Your task to perform on an android device: add a contact in the contacts app Image 0: 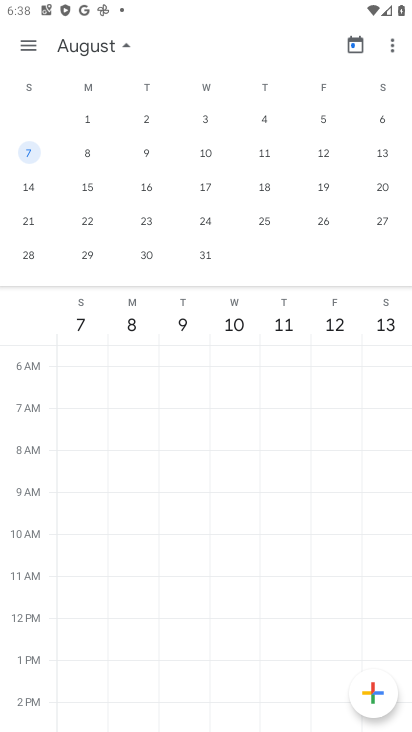
Step 0: press home button
Your task to perform on an android device: add a contact in the contacts app Image 1: 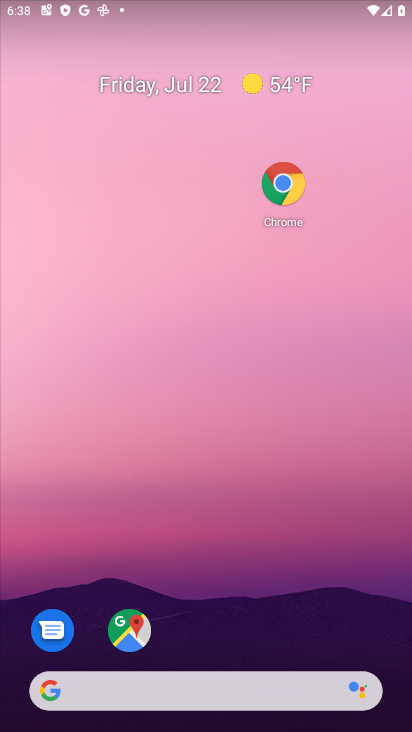
Step 1: drag from (193, 621) to (193, 169)
Your task to perform on an android device: add a contact in the contacts app Image 2: 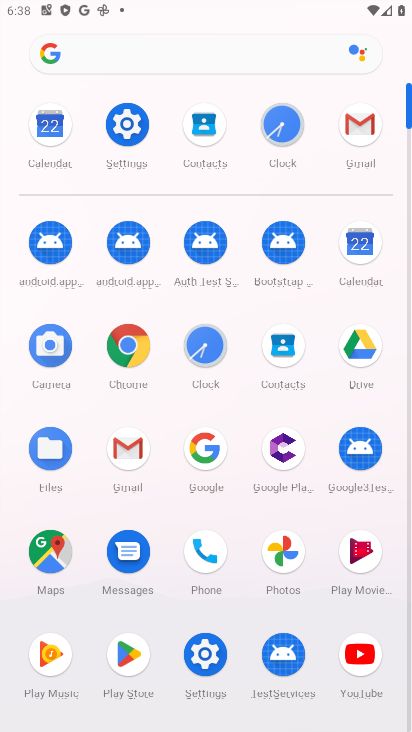
Step 2: click (281, 349)
Your task to perform on an android device: add a contact in the contacts app Image 3: 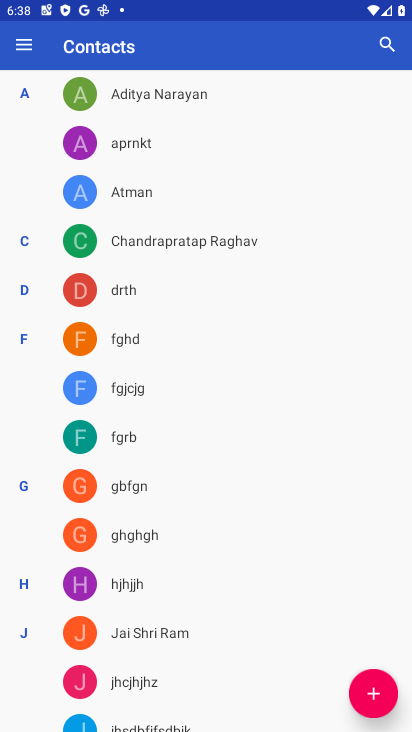
Step 3: click (365, 695)
Your task to perform on an android device: add a contact in the contacts app Image 4: 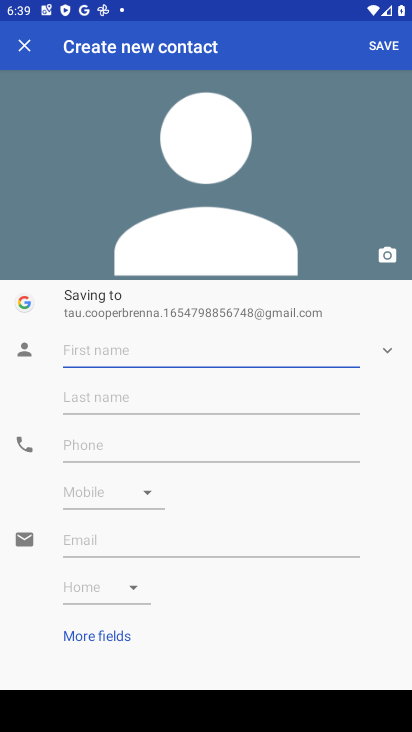
Step 4: click (175, 350)
Your task to perform on an android device: add a contact in the contacts app Image 5: 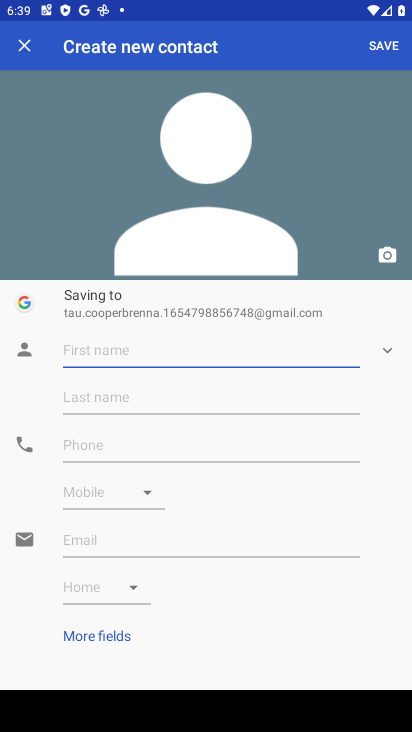
Step 5: type "Iddhi"
Your task to perform on an android device: add a contact in the contacts app Image 6: 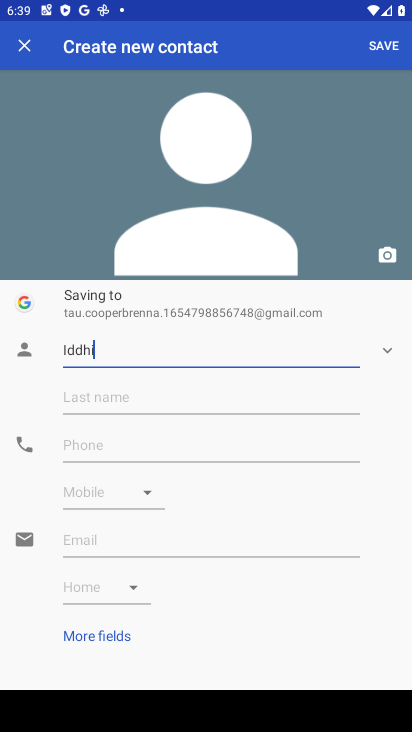
Step 6: click (239, 441)
Your task to perform on an android device: add a contact in the contacts app Image 7: 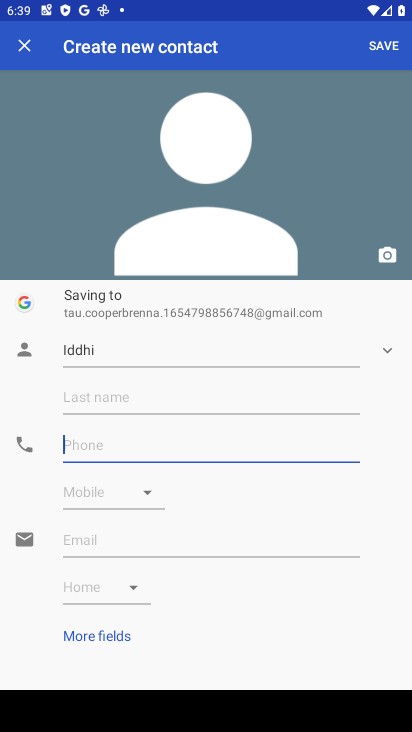
Step 7: type "7654567890"
Your task to perform on an android device: add a contact in the contacts app Image 8: 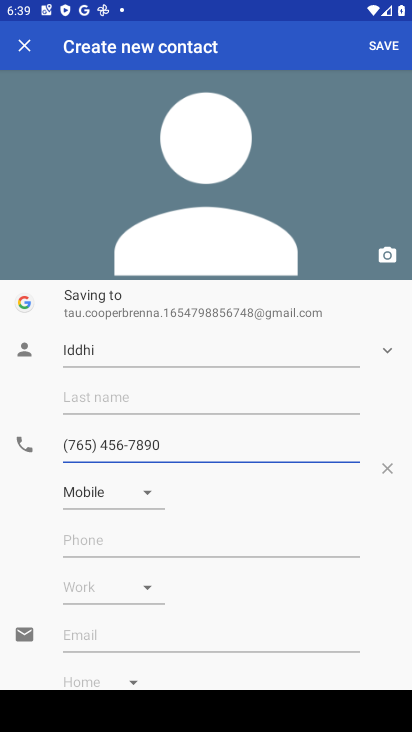
Step 8: click (378, 42)
Your task to perform on an android device: add a contact in the contacts app Image 9: 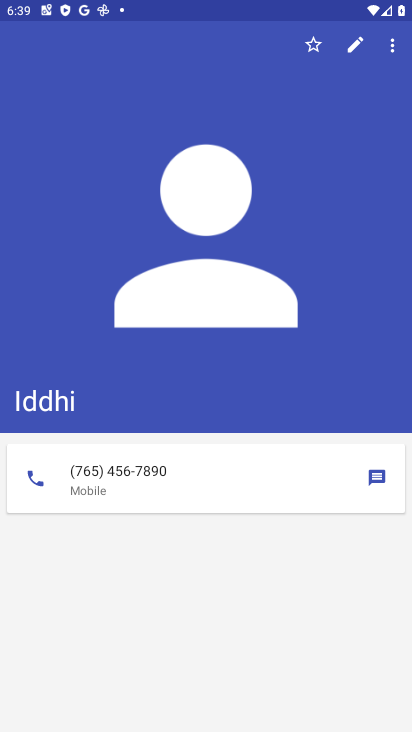
Step 9: task complete